Your task to perform on an android device: What's the weather today? Image 0: 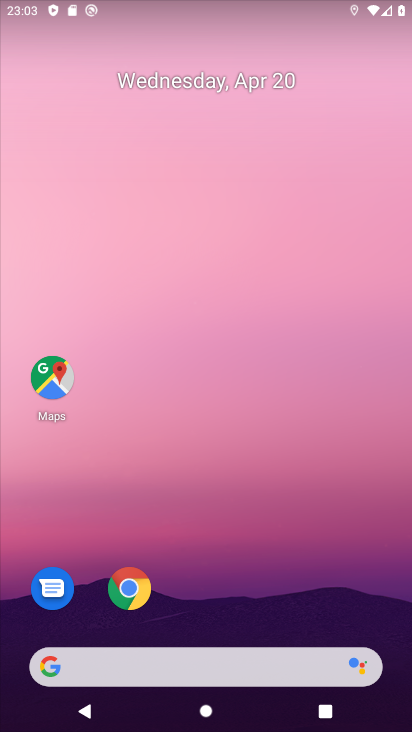
Step 0: drag from (6, 262) to (372, 316)
Your task to perform on an android device: What's the weather today? Image 1: 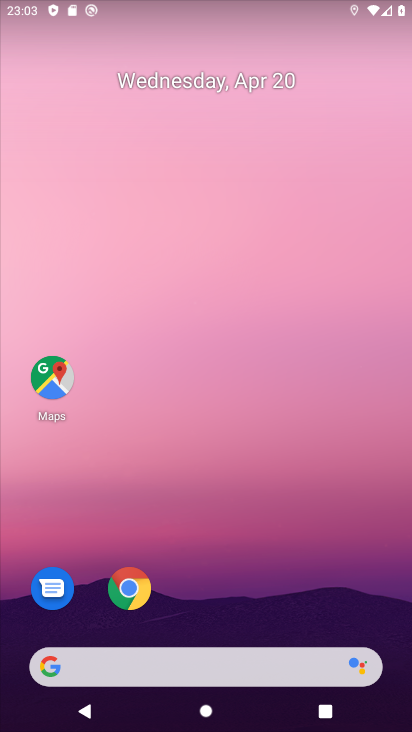
Step 1: drag from (5, 251) to (402, 258)
Your task to perform on an android device: What's the weather today? Image 2: 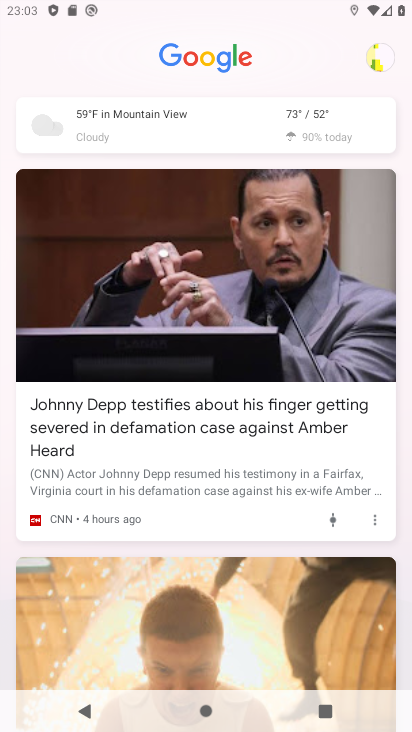
Step 2: click (266, 133)
Your task to perform on an android device: What's the weather today? Image 3: 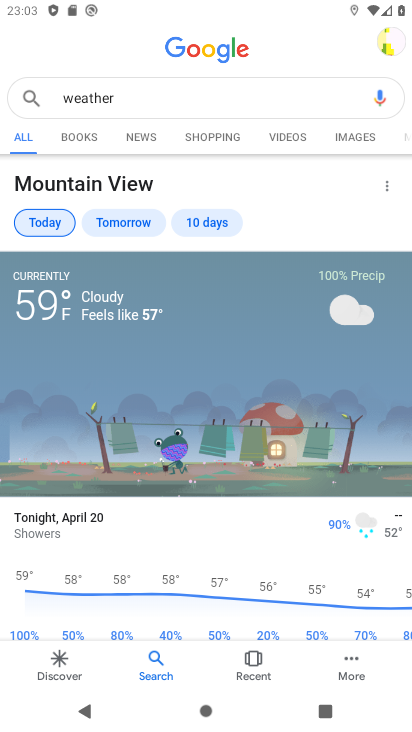
Step 3: click (139, 386)
Your task to perform on an android device: What's the weather today? Image 4: 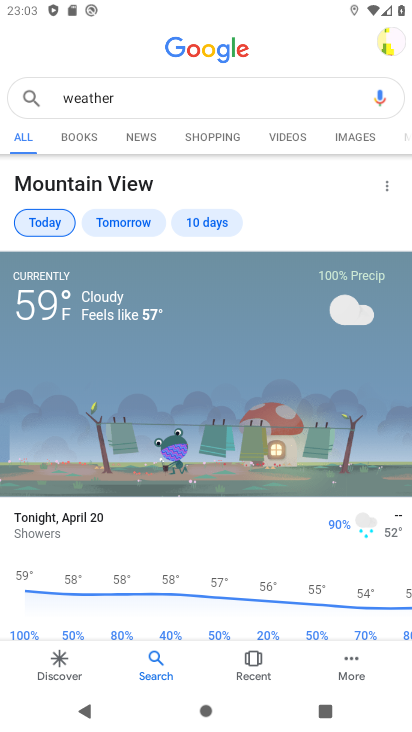
Step 4: click (223, 542)
Your task to perform on an android device: What's the weather today? Image 5: 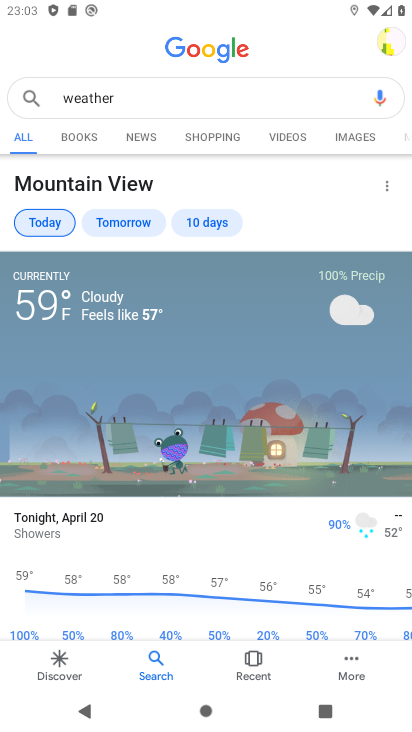
Step 5: task complete